Your task to perform on an android device: stop showing notifications on the lock screen Image 0: 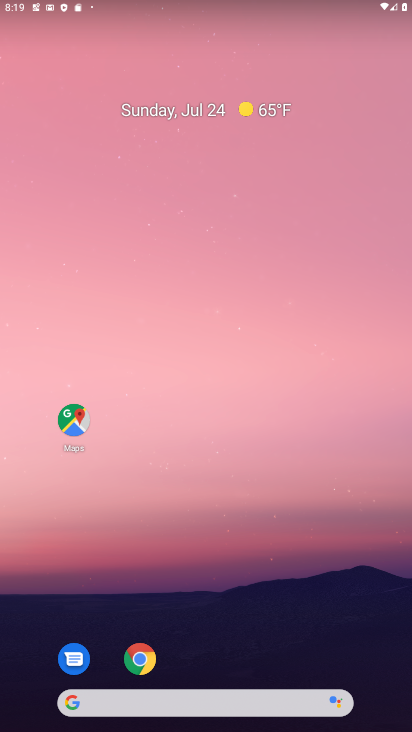
Step 0: drag from (238, 676) to (219, 5)
Your task to perform on an android device: stop showing notifications on the lock screen Image 1: 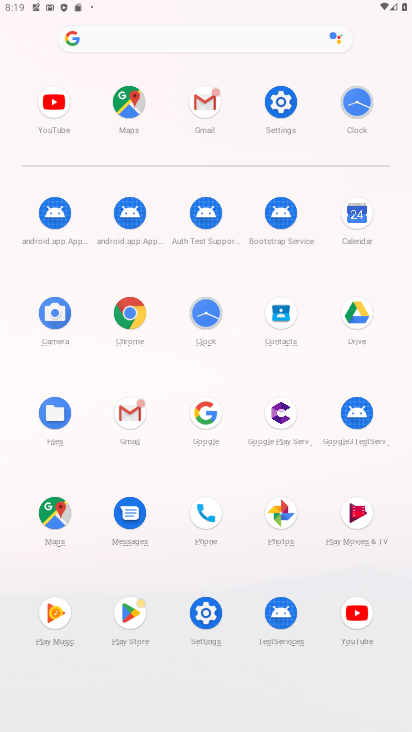
Step 1: click (282, 98)
Your task to perform on an android device: stop showing notifications on the lock screen Image 2: 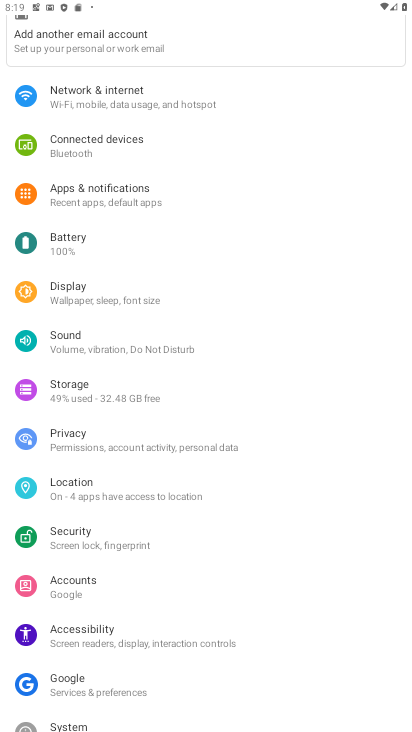
Step 2: click (89, 197)
Your task to perform on an android device: stop showing notifications on the lock screen Image 3: 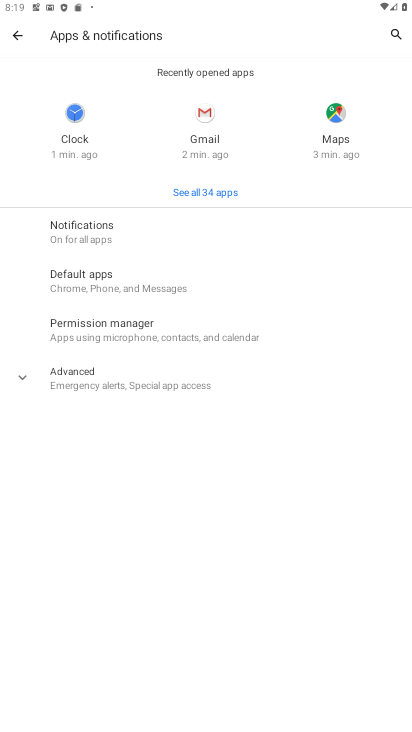
Step 3: click (78, 241)
Your task to perform on an android device: stop showing notifications on the lock screen Image 4: 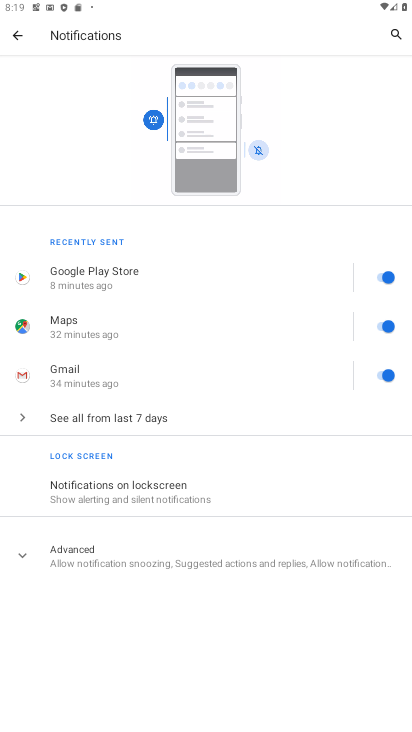
Step 4: click (102, 497)
Your task to perform on an android device: stop showing notifications on the lock screen Image 5: 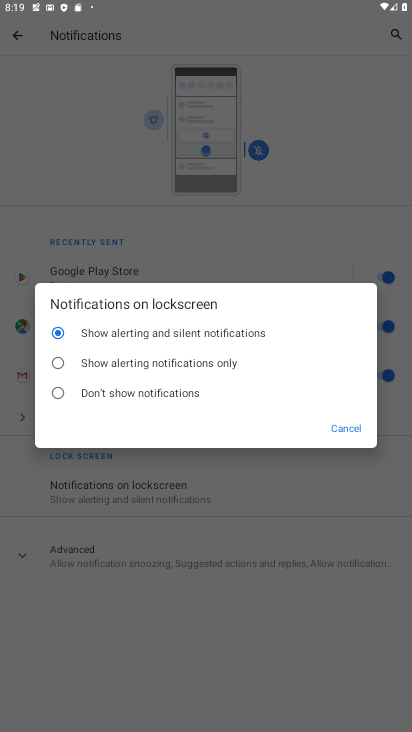
Step 5: click (55, 391)
Your task to perform on an android device: stop showing notifications on the lock screen Image 6: 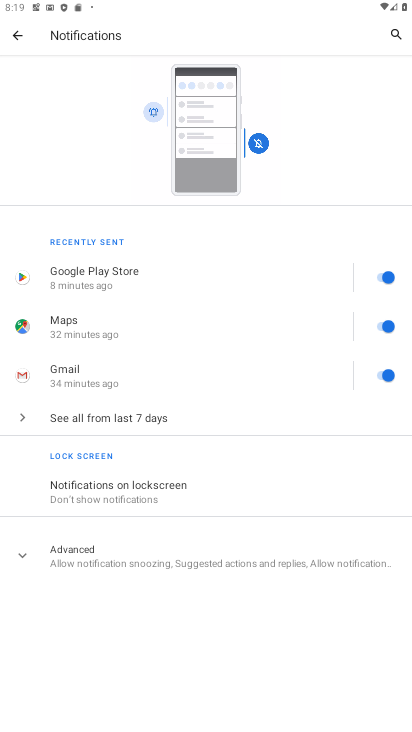
Step 6: task complete